Your task to perform on an android device: Add bose soundsport free to the cart on amazon.com Image 0: 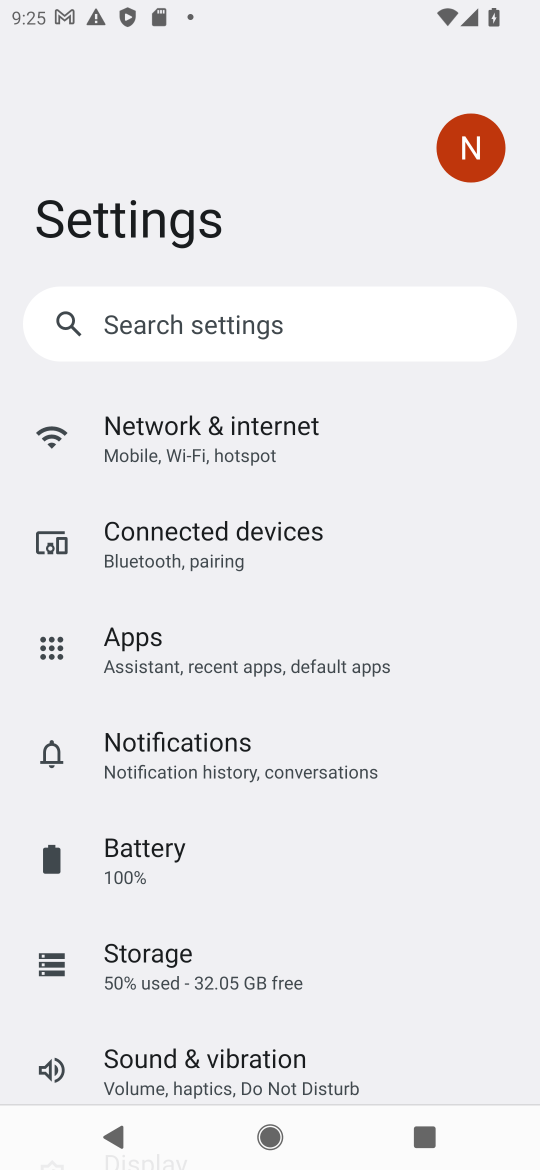
Step 0: press home button
Your task to perform on an android device: Add bose soundsport free to the cart on amazon.com Image 1: 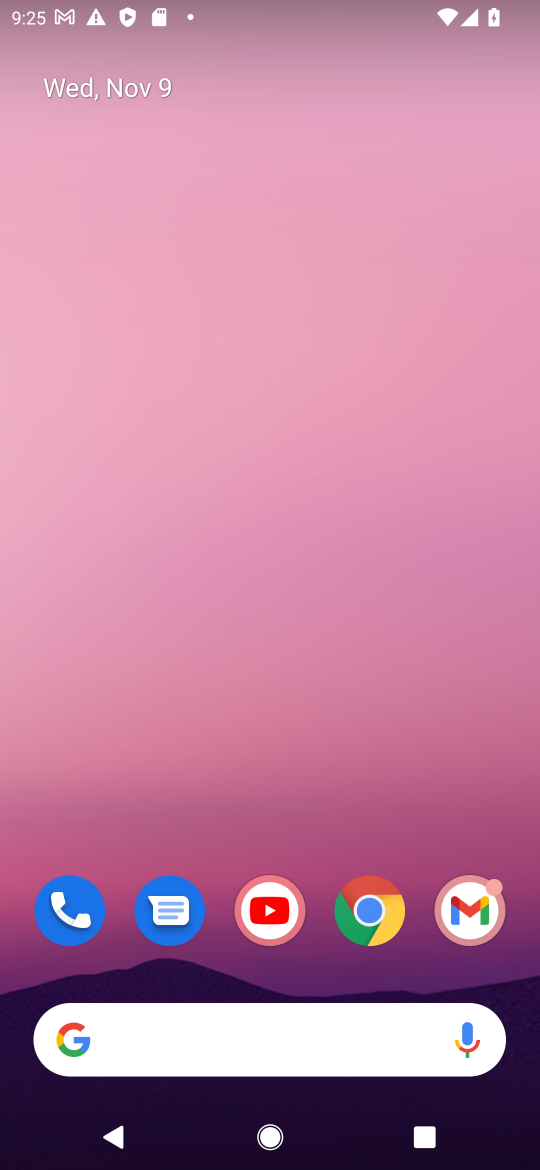
Step 1: click (368, 915)
Your task to perform on an android device: Add bose soundsport free to the cart on amazon.com Image 2: 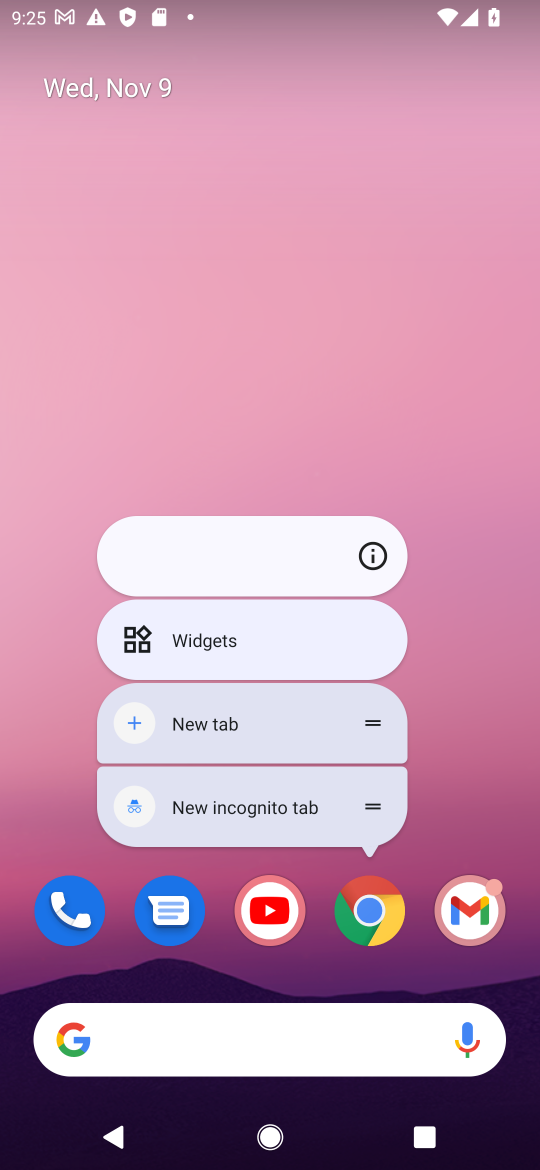
Step 2: click (368, 915)
Your task to perform on an android device: Add bose soundsport free to the cart on amazon.com Image 3: 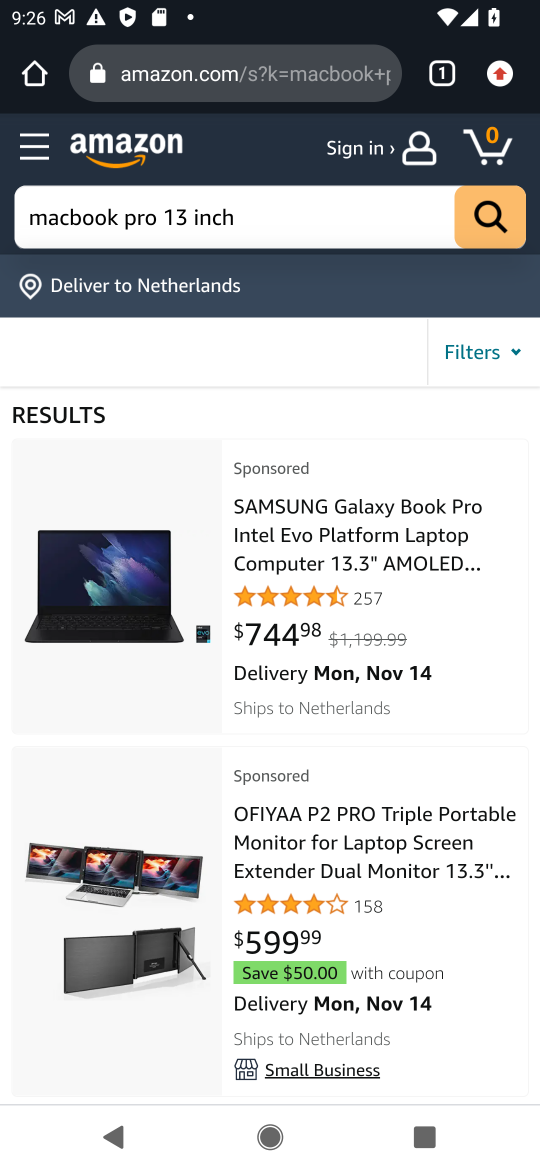
Step 3: click (228, 224)
Your task to perform on an android device: Add bose soundsport free to the cart on amazon.com Image 4: 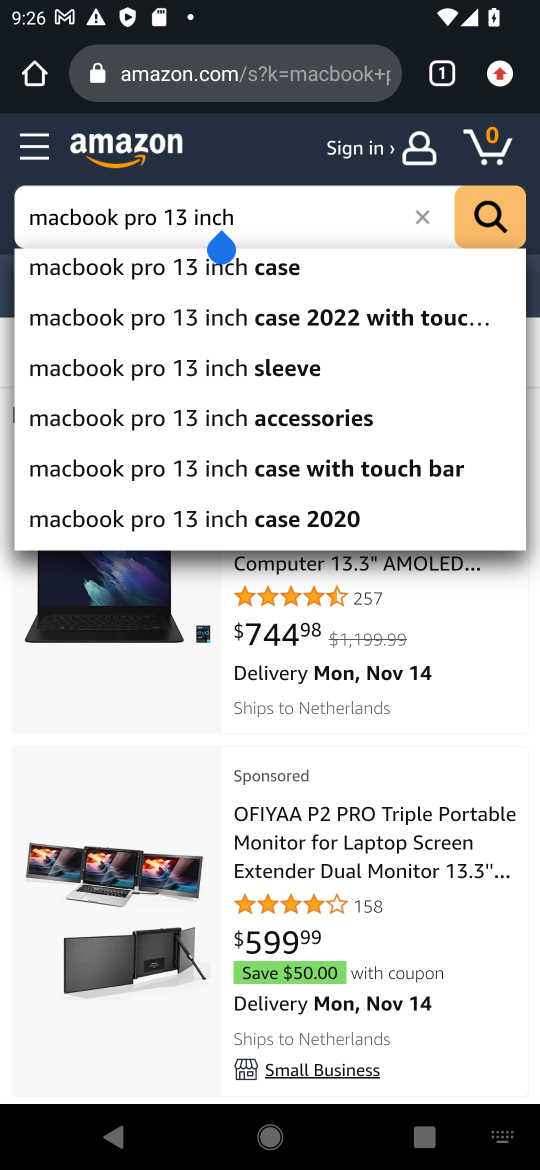
Step 4: click (415, 211)
Your task to perform on an android device: Add bose soundsport free to the cart on amazon.com Image 5: 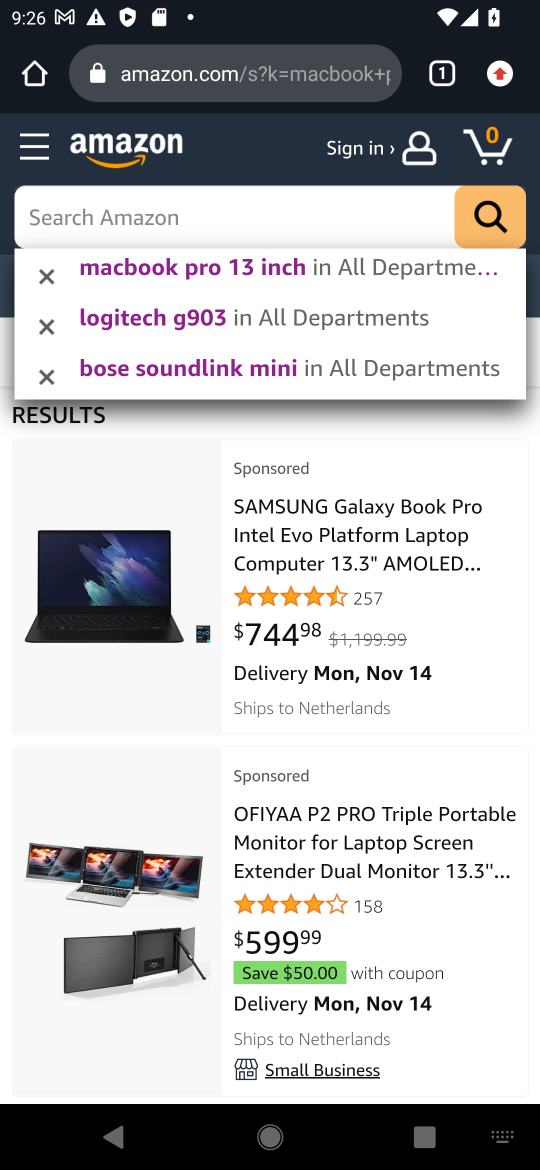
Step 5: type "bose soundsport free"
Your task to perform on an android device: Add bose soundsport free to the cart on amazon.com Image 6: 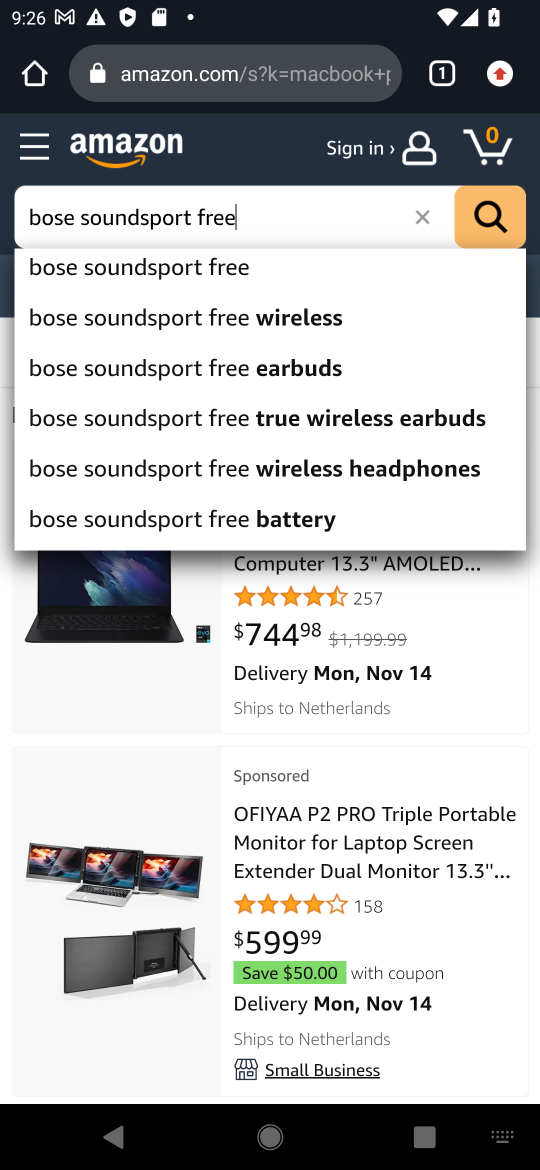
Step 6: click (155, 276)
Your task to perform on an android device: Add bose soundsport free to the cart on amazon.com Image 7: 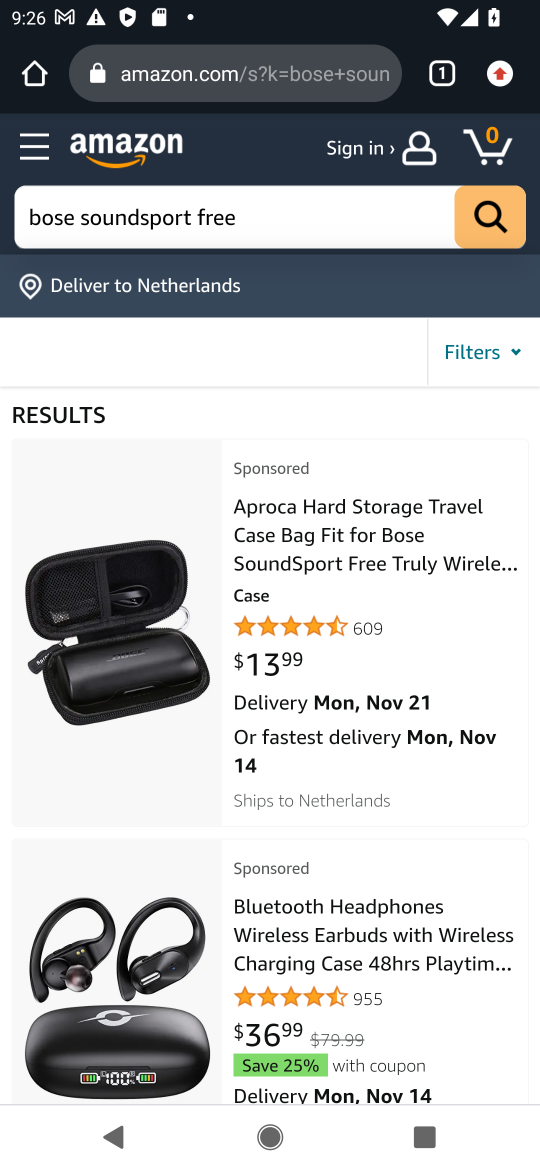
Step 7: click (138, 674)
Your task to perform on an android device: Add bose soundsport free to the cart on amazon.com Image 8: 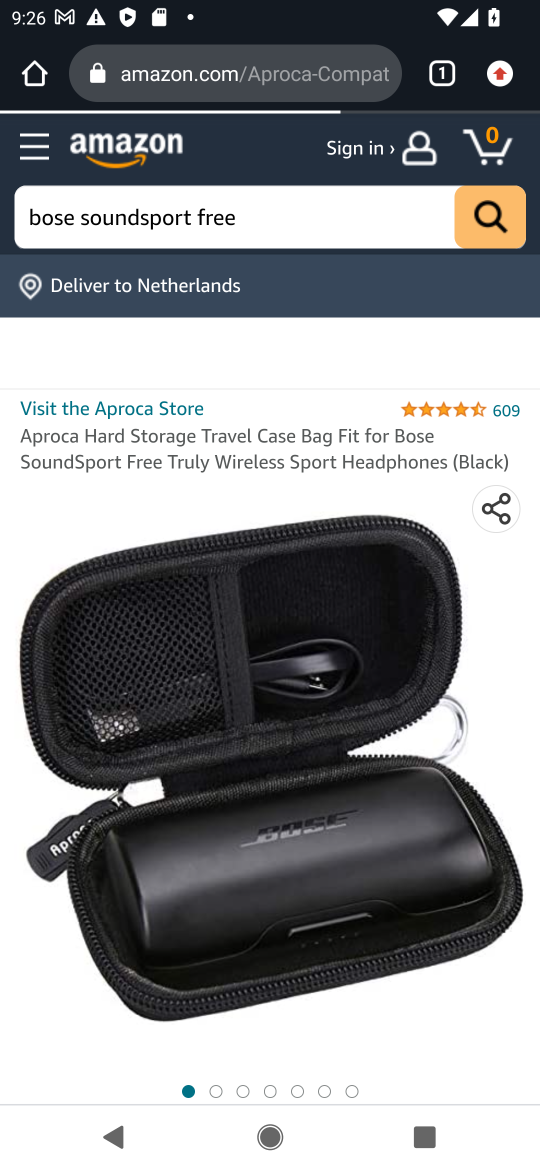
Step 8: drag from (259, 861) to (259, 292)
Your task to perform on an android device: Add bose soundsport free to the cart on amazon.com Image 9: 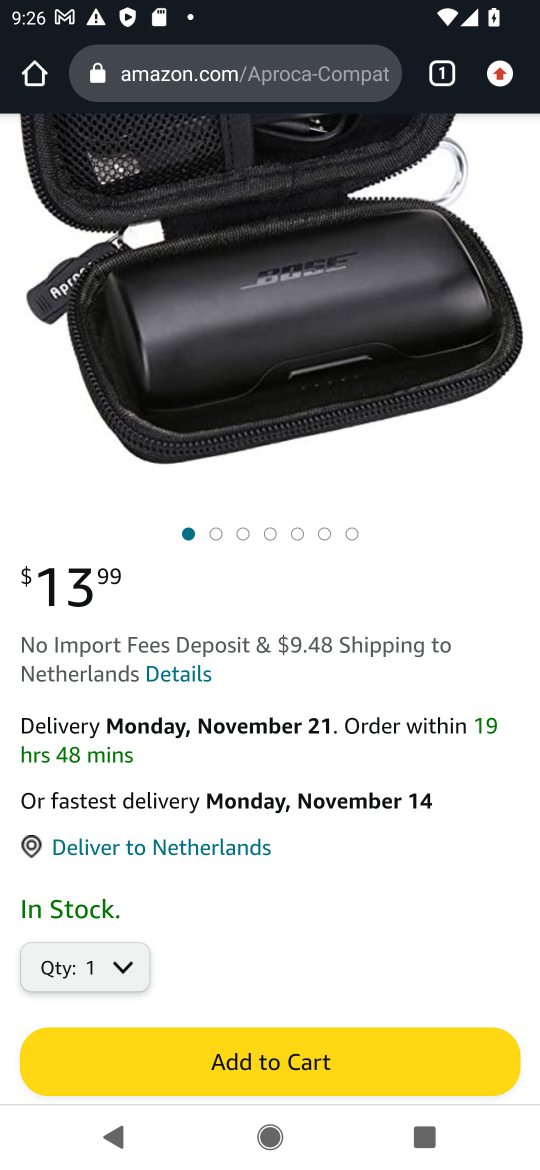
Step 9: click (251, 1057)
Your task to perform on an android device: Add bose soundsport free to the cart on amazon.com Image 10: 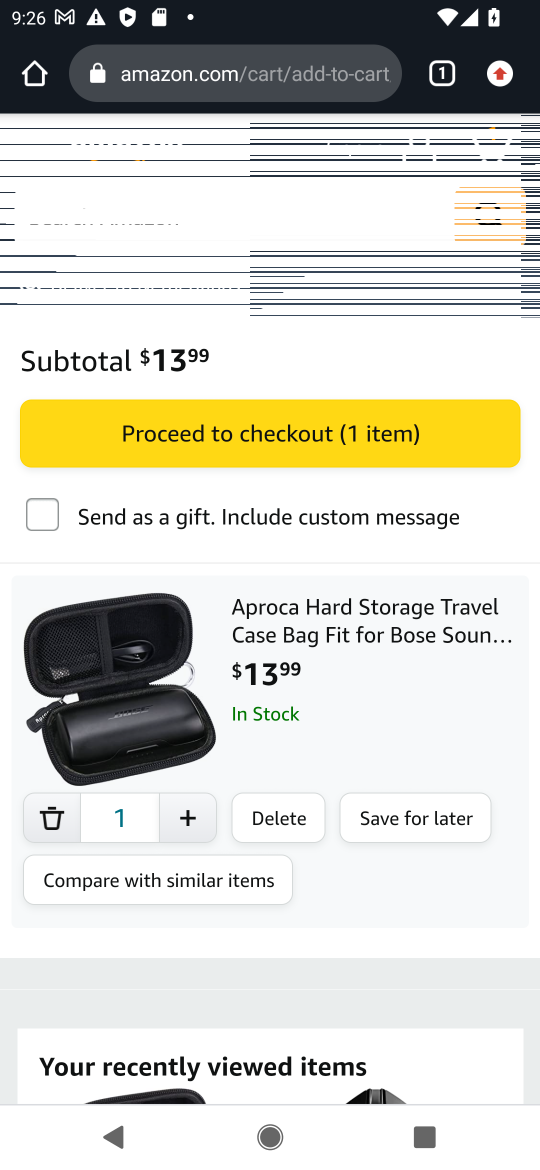
Step 10: task complete